Your task to perform on an android device: toggle priority inbox in the gmail app Image 0: 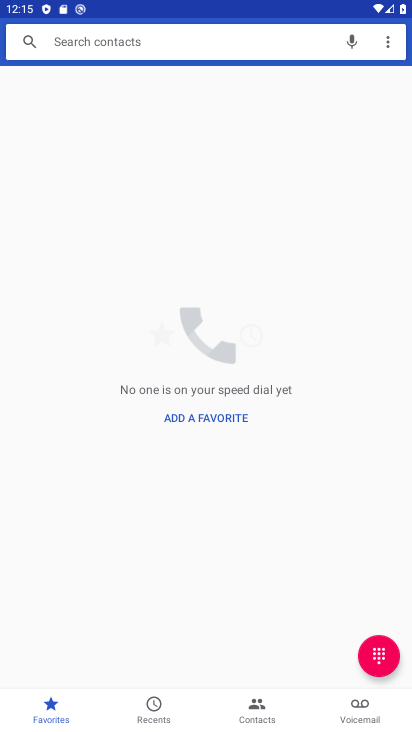
Step 0: press home button
Your task to perform on an android device: toggle priority inbox in the gmail app Image 1: 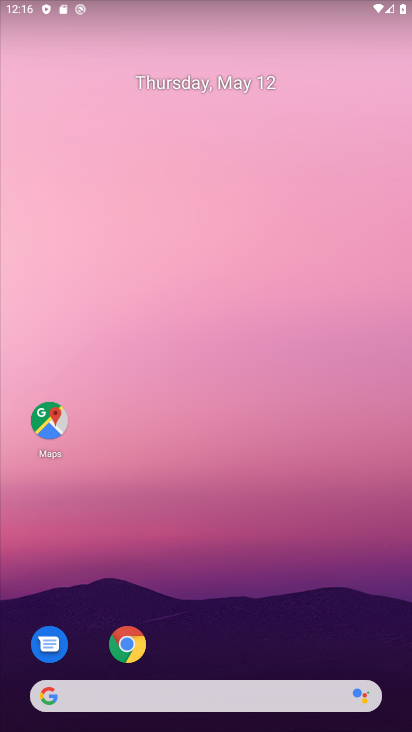
Step 1: drag from (254, 604) to (210, 51)
Your task to perform on an android device: toggle priority inbox in the gmail app Image 2: 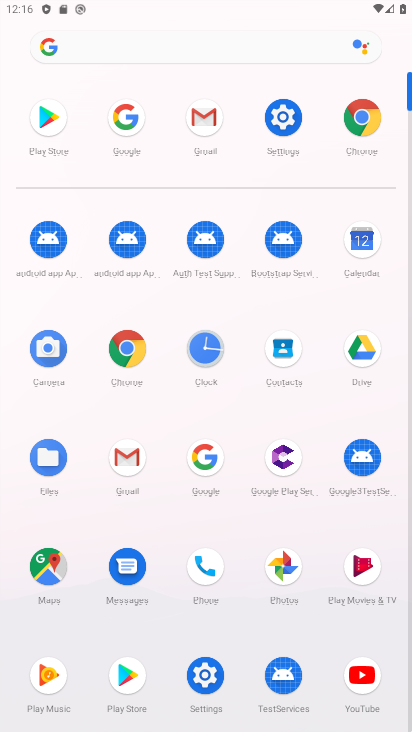
Step 2: click (122, 454)
Your task to perform on an android device: toggle priority inbox in the gmail app Image 3: 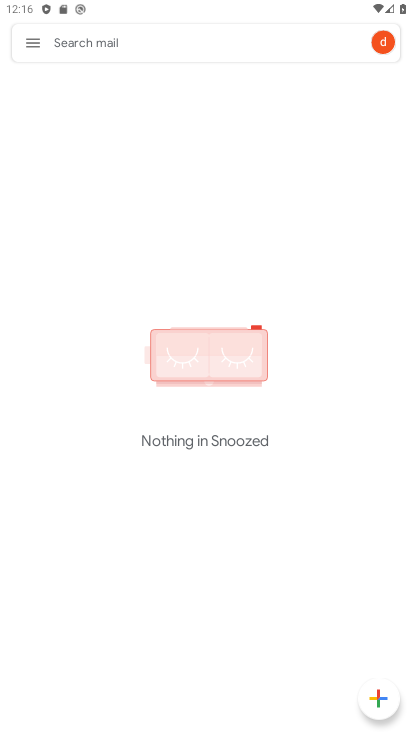
Step 3: click (28, 46)
Your task to perform on an android device: toggle priority inbox in the gmail app Image 4: 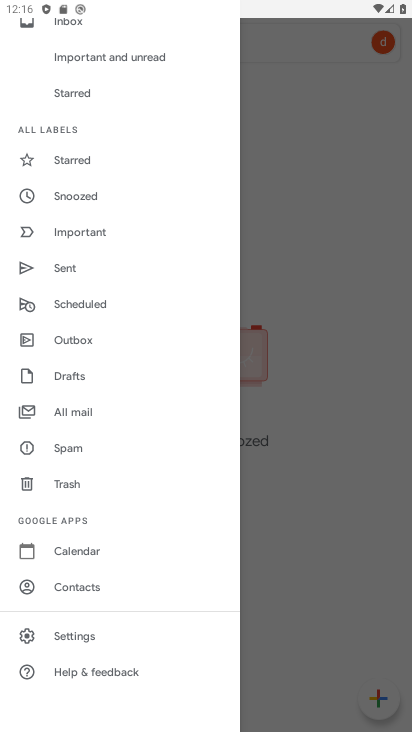
Step 4: click (109, 642)
Your task to perform on an android device: toggle priority inbox in the gmail app Image 5: 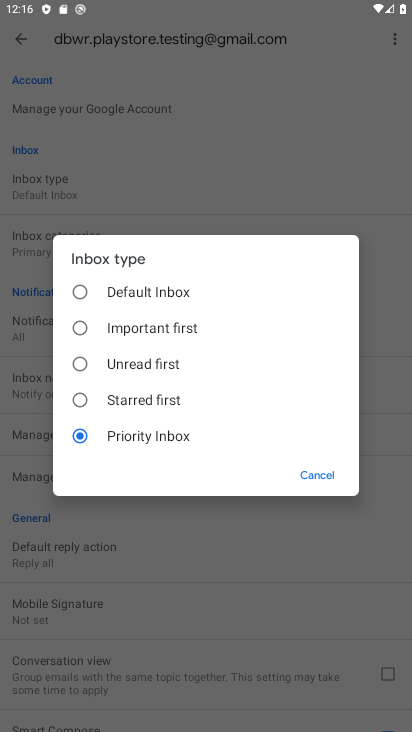
Step 5: click (148, 289)
Your task to perform on an android device: toggle priority inbox in the gmail app Image 6: 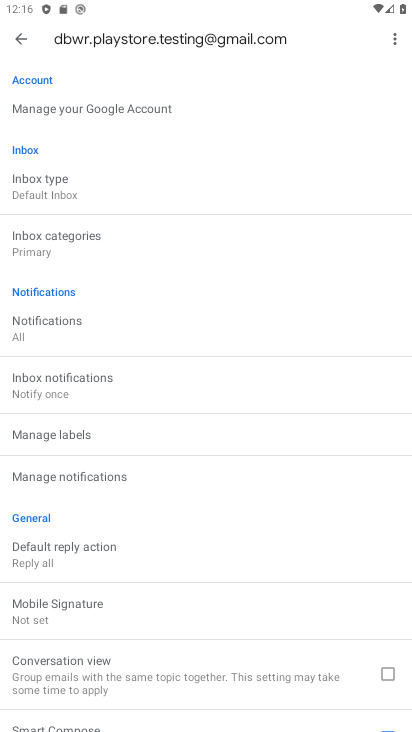
Step 6: task complete